Your task to perform on an android device: turn on showing notifications on the lock screen Image 0: 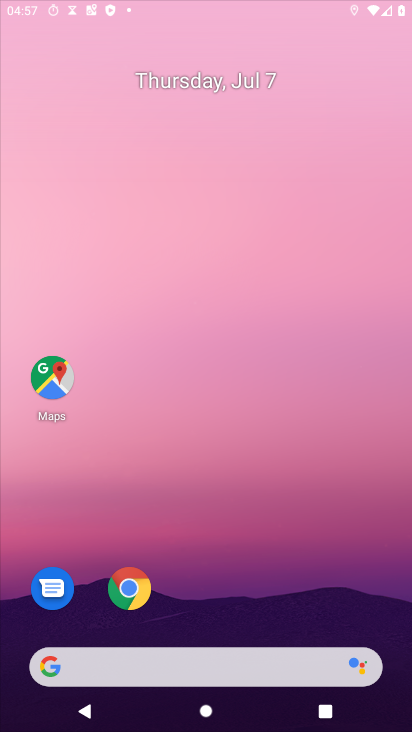
Step 0: press home button
Your task to perform on an android device: turn on showing notifications on the lock screen Image 1: 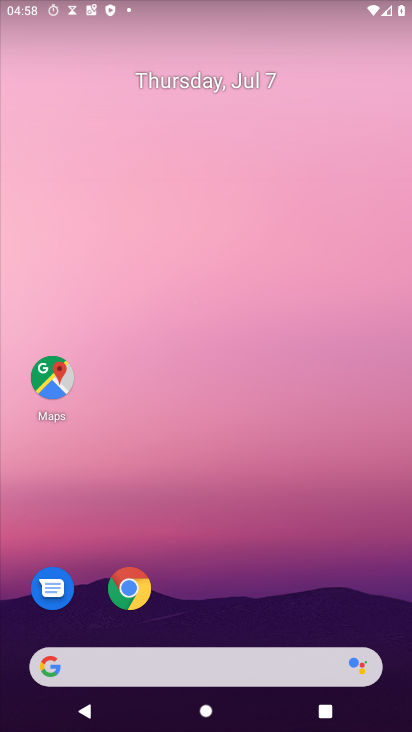
Step 1: drag from (321, 639) to (293, 230)
Your task to perform on an android device: turn on showing notifications on the lock screen Image 2: 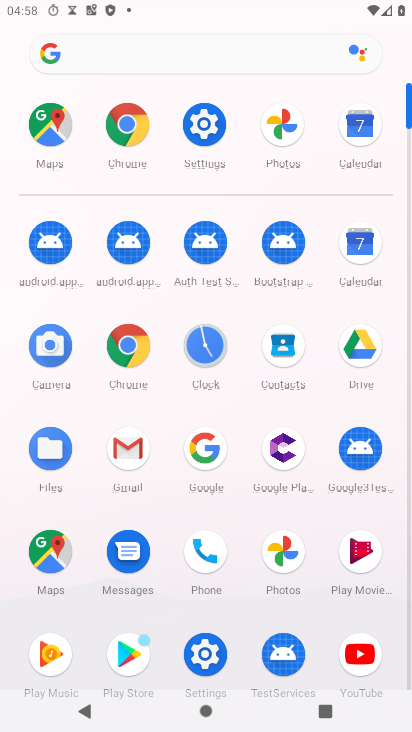
Step 2: click (212, 664)
Your task to perform on an android device: turn on showing notifications on the lock screen Image 3: 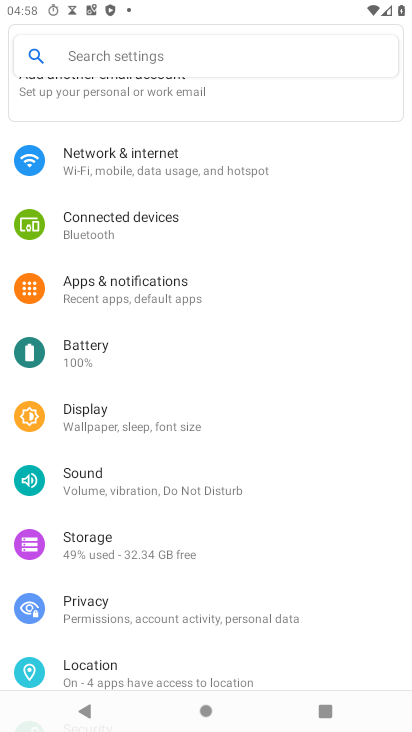
Step 3: click (147, 278)
Your task to perform on an android device: turn on showing notifications on the lock screen Image 4: 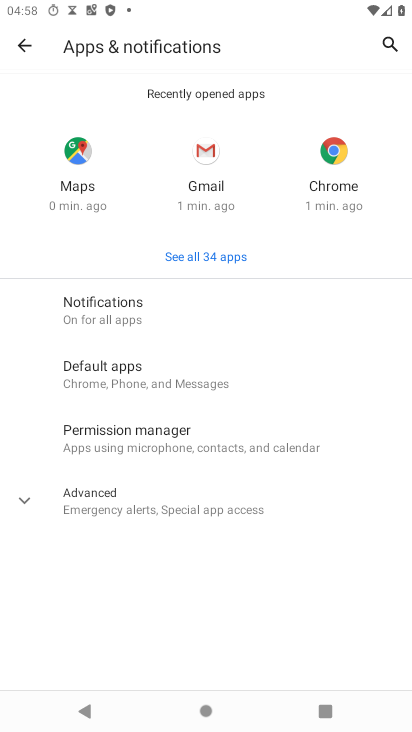
Step 4: click (131, 315)
Your task to perform on an android device: turn on showing notifications on the lock screen Image 5: 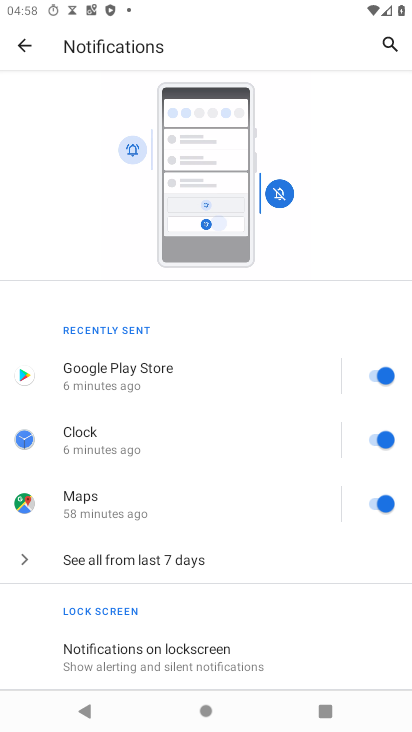
Step 5: click (148, 658)
Your task to perform on an android device: turn on showing notifications on the lock screen Image 6: 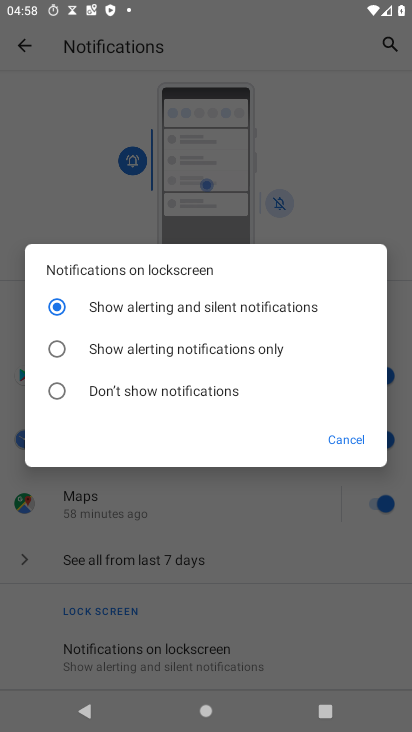
Step 6: task complete